Your task to perform on an android device: Do I have any events today? Image 0: 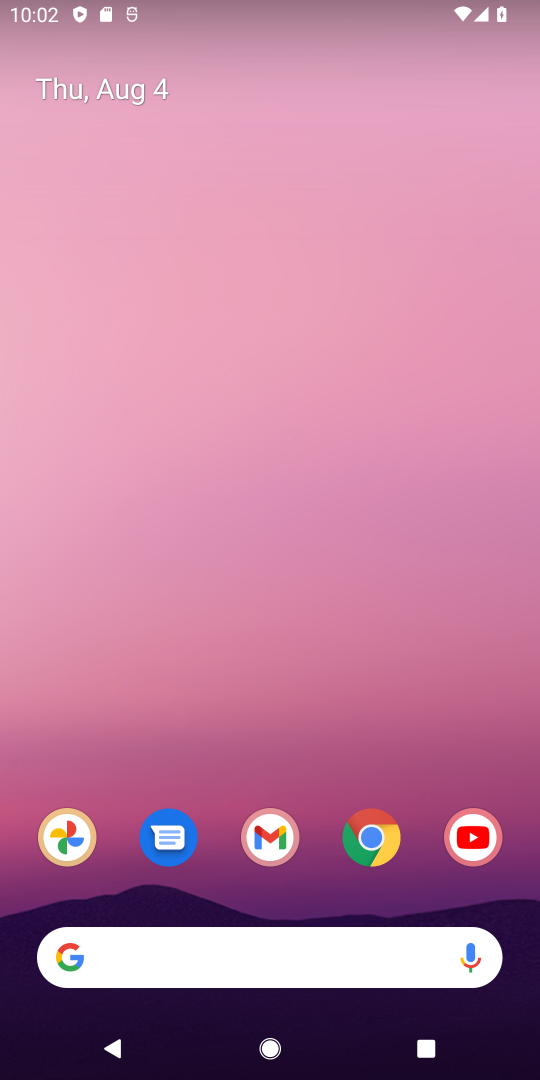
Step 0: press home button
Your task to perform on an android device: Do I have any events today? Image 1: 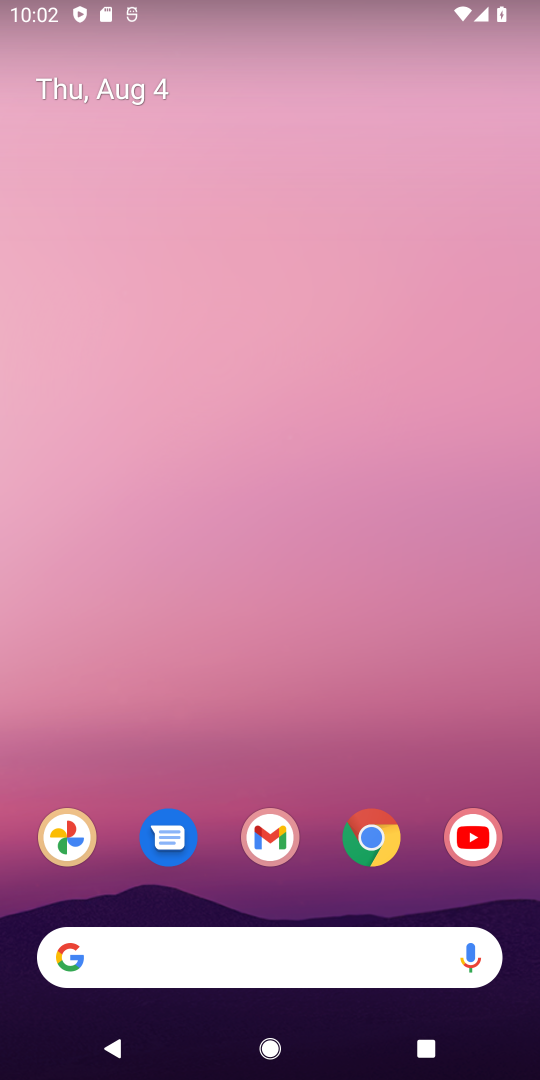
Step 1: drag from (317, 885) to (303, 127)
Your task to perform on an android device: Do I have any events today? Image 2: 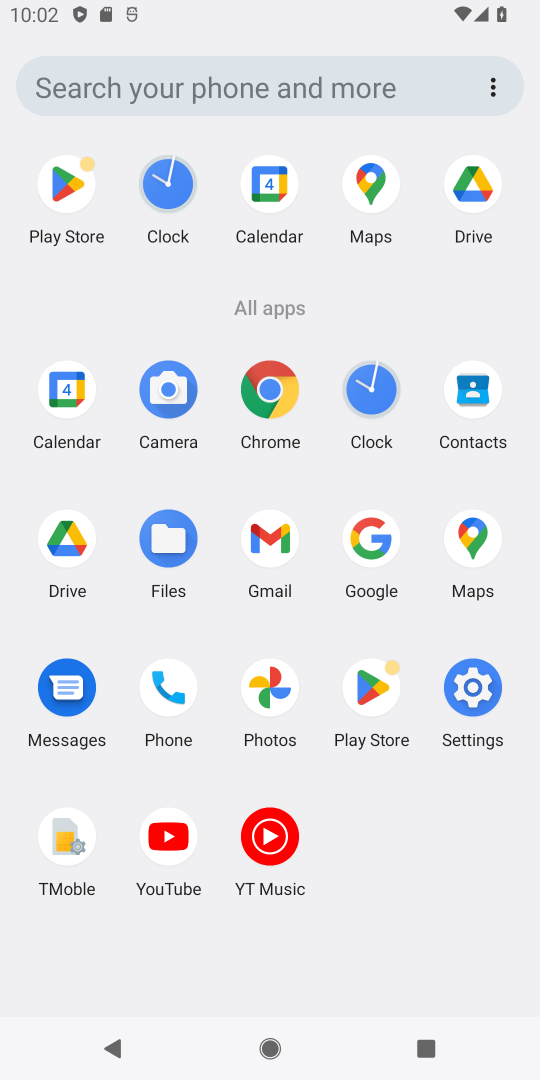
Step 2: click (56, 382)
Your task to perform on an android device: Do I have any events today? Image 3: 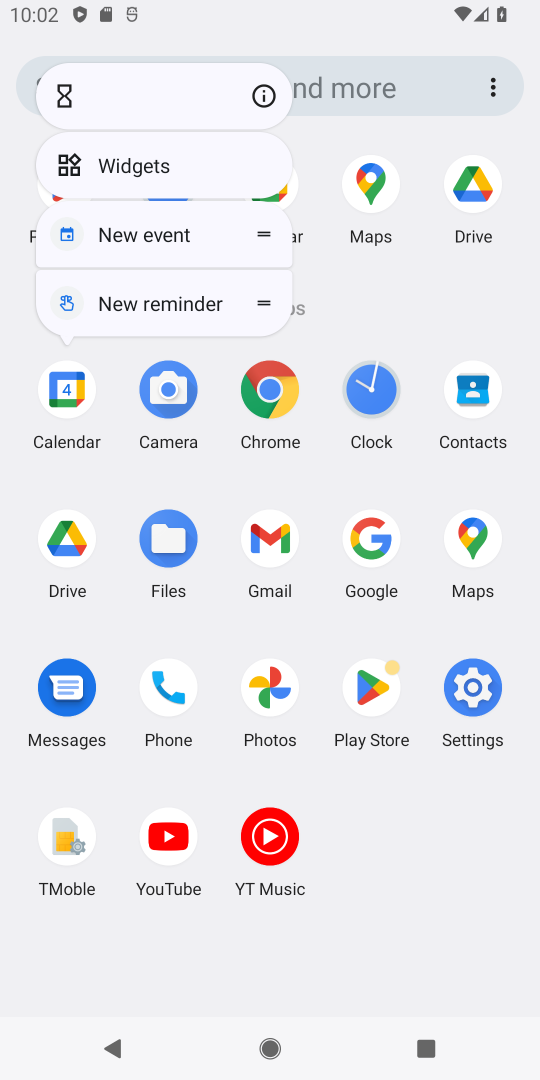
Step 3: click (67, 387)
Your task to perform on an android device: Do I have any events today? Image 4: 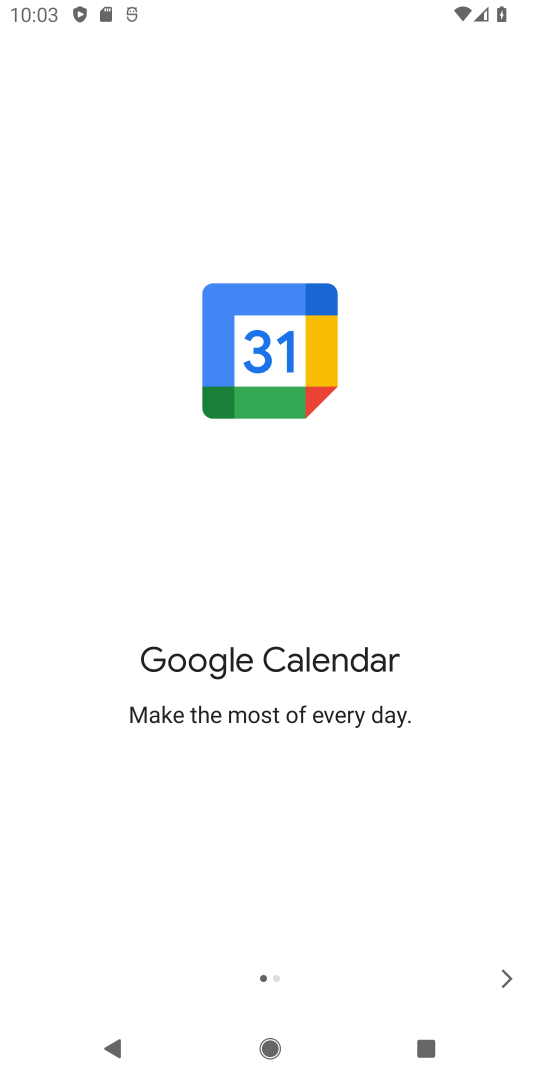
Step 4: click (499, 980)
Your task to perform on an android device: Do I have any events today? Image 5: 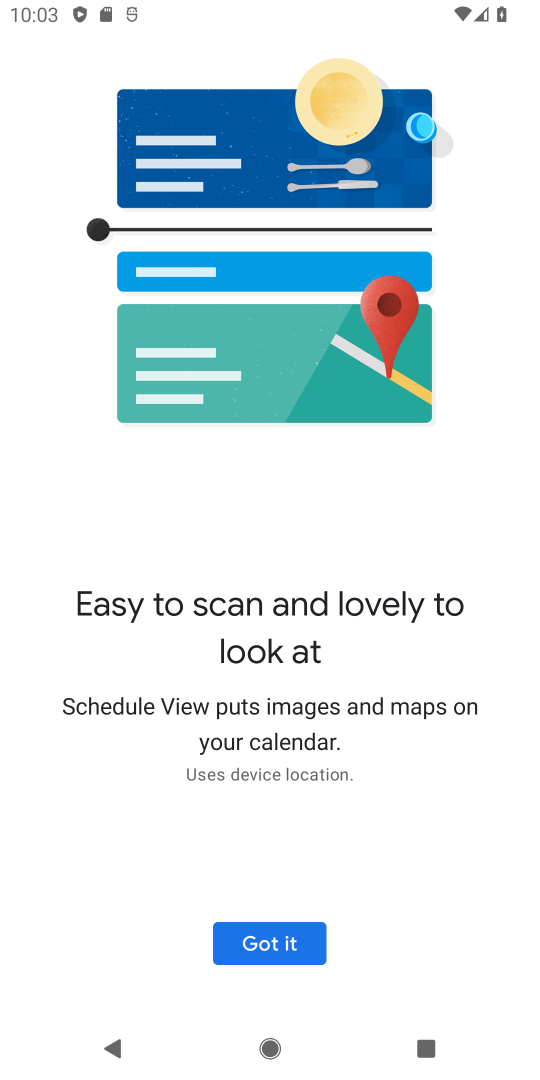
Step 5: click (274, 936)
Your task to perform on an android device: Do I have any events today? Image 6: 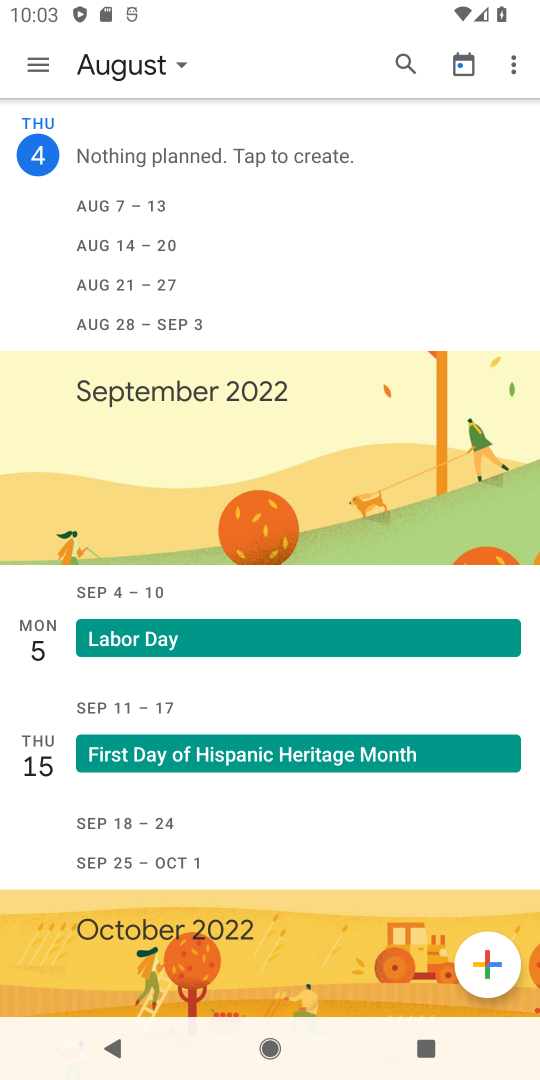
Step 6: click (50, 166)
Your task to perform on an android device: Do I have any events today? Image 7: 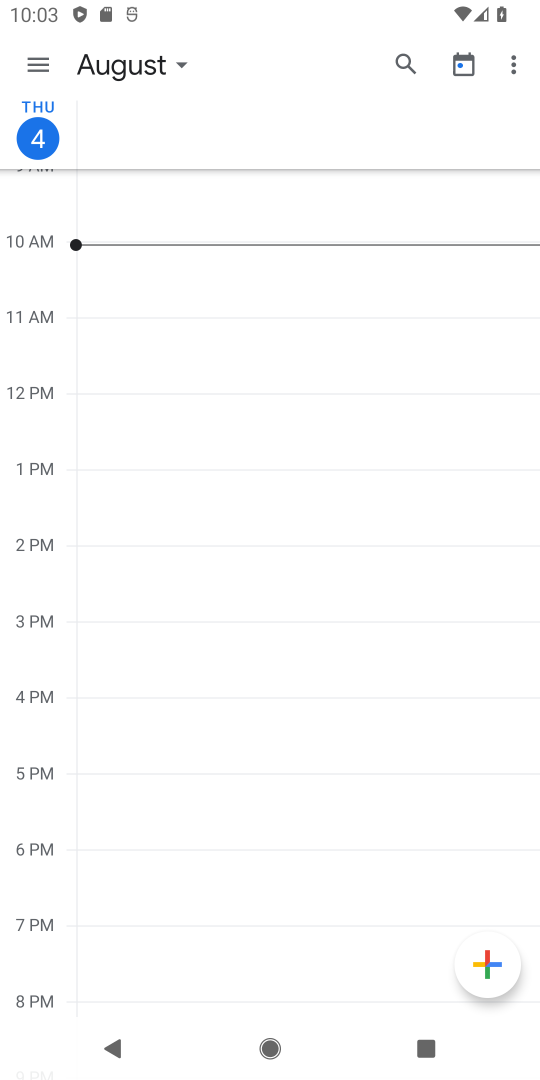
Step 7: task complete